Your task to perform on an android device: Open Youtube and go to the subscriptions tab Image 0: 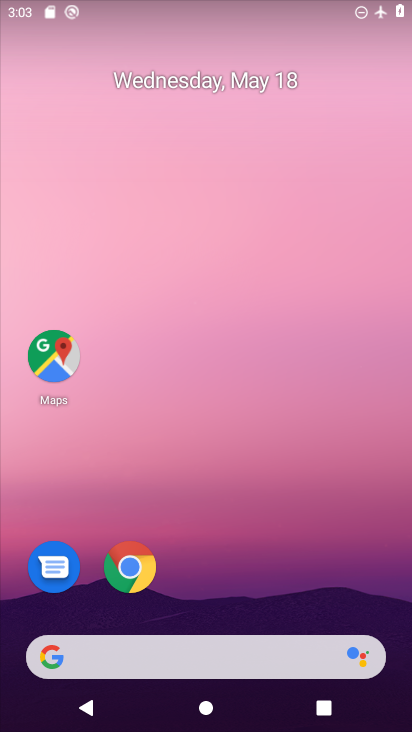
Step 0: drag from (337, 632) to (293, 214)
Your task to perform on an android device: Open Youtube and go to the subscriptions tab Image 1: 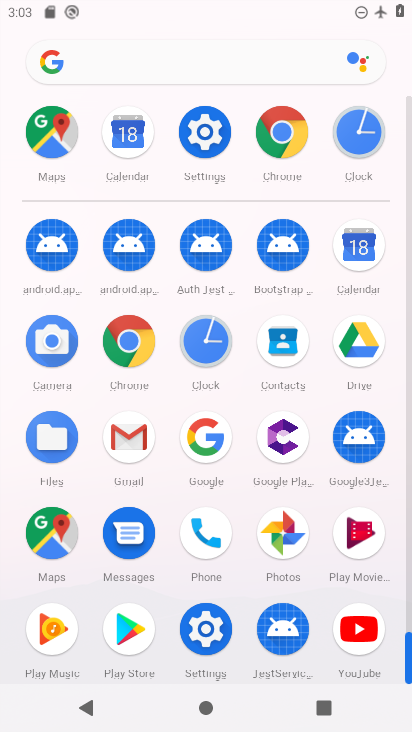
Step 1: click (379, 616)
Your task to perform on an android device: Open Youtube and go to the subscriptions tab Image 2: 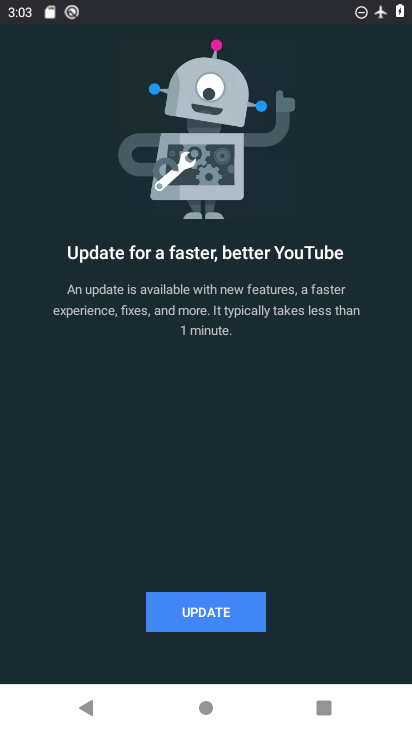
Step 2: task complete